Your task to perform on an android device: turn on wifi Image 0: 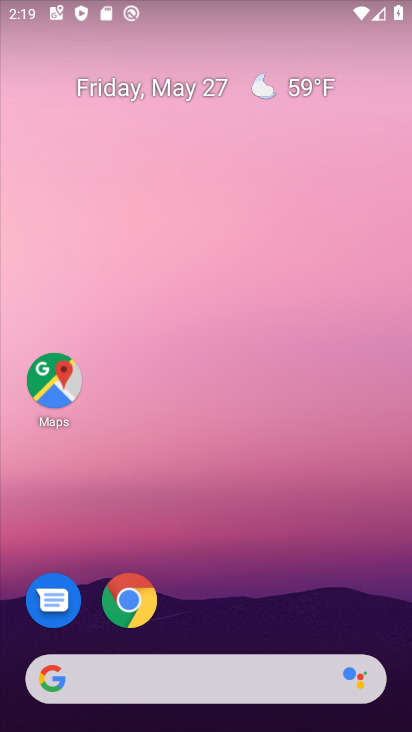
Step 0: drag from (271, 575) to (194, 112)
Your task to perform on an android device: turn on wifi Image 1: 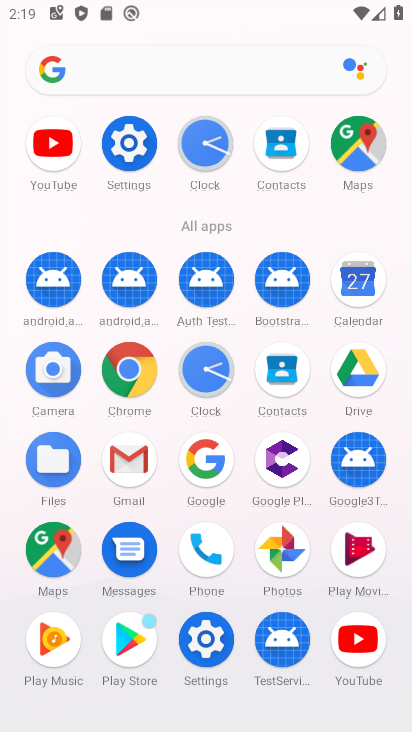
Step 1: click (132, 142)
Your task to perform on an android device: turn on wifi Image 2: 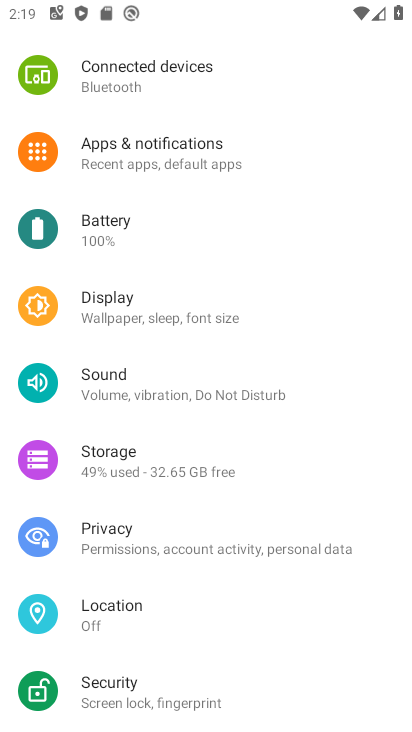
Step 2: drag from (173, 128) to (166, 281)
Your task to perform on an android device: turn on wifi Image 3: 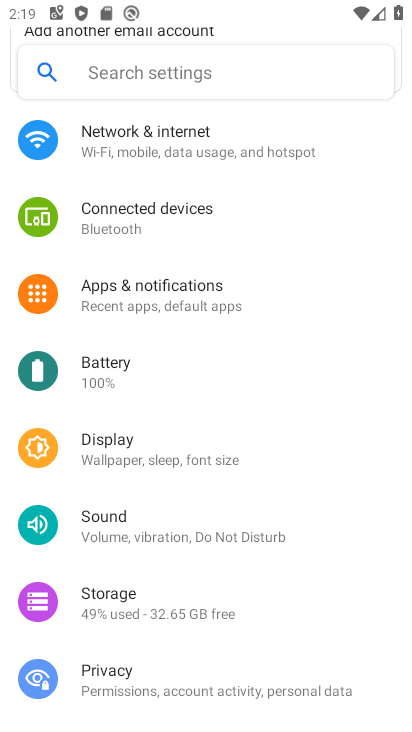
Step 3: drag from (176, 194) to (189, 319)
Your task to perform on an android device: turn on wifi Image 4: 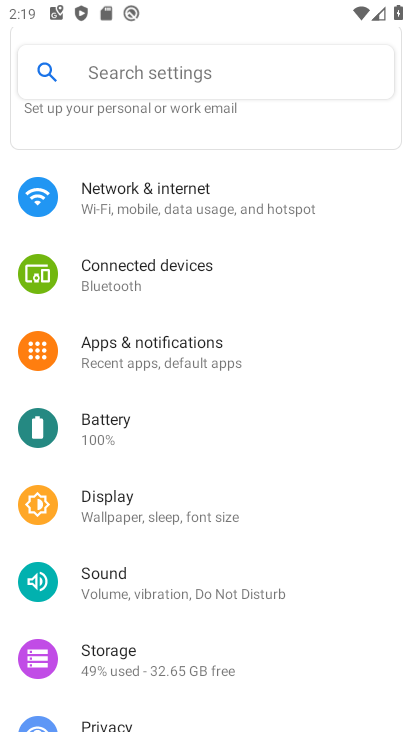
Step 4: click (175, 209)
Your task to perform on an android device: turn on wifi Image 5: 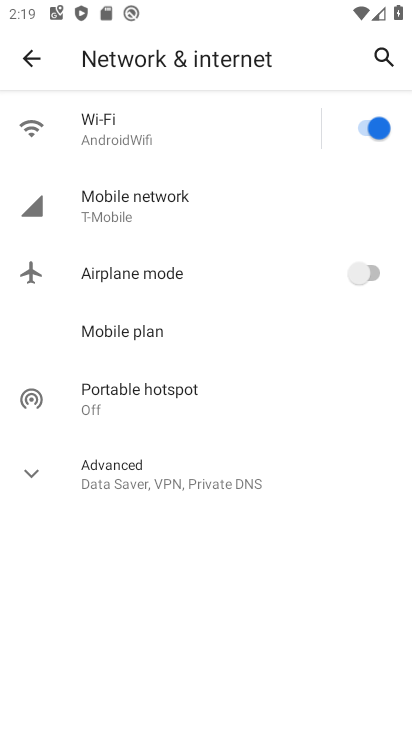
Step 5: task complete